Your task to perform on an android device: Go to network settings Image 0: 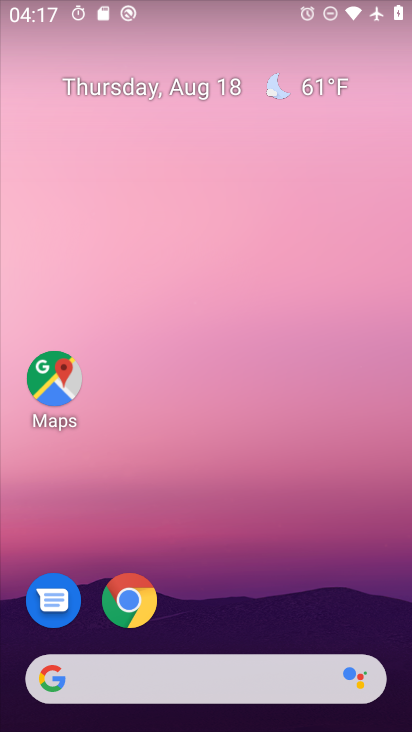
Step 0: press home button
Your task to perform on an android device: Go to network settings Image 1: 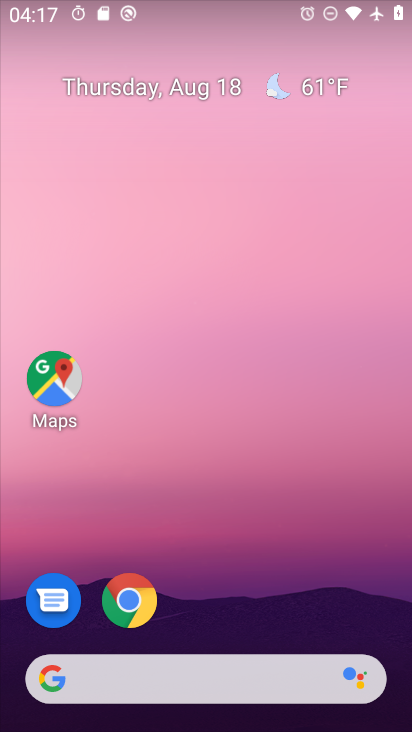
Step 1: drag from (227, 632) to (405, 104)
Your task to perform on an android device: Go to network settings Image 2: 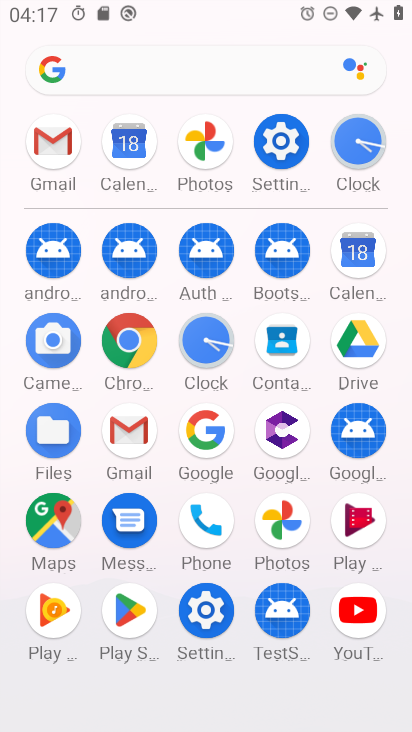
Step 2: click (289, 132)
Your task to perform on an android device: Go to network settings Image 3: 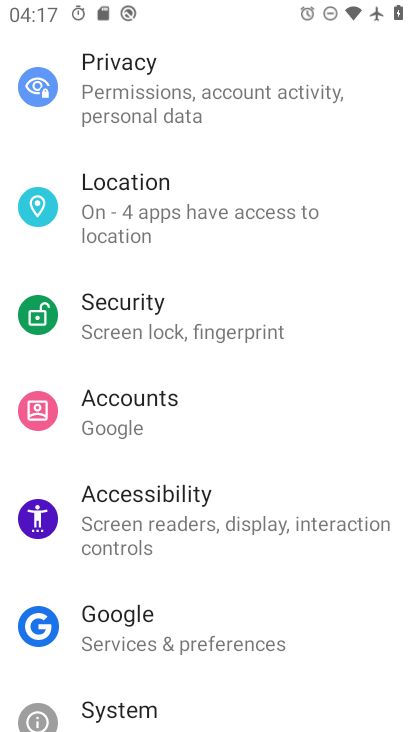
Step 3: drag from (276, 164) to (212, 721)
Your task to perform on an android device: Go to network settings Image 4: 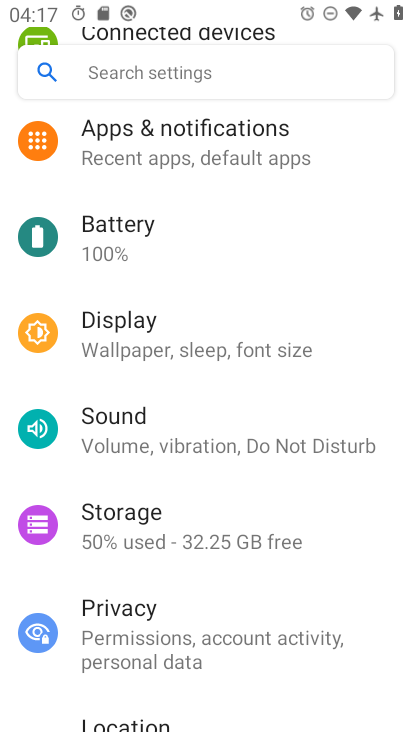
Step 4: drag from (275, 249) to (215, 722)
Your task to perform on an android device: Go to network settings Image 5: 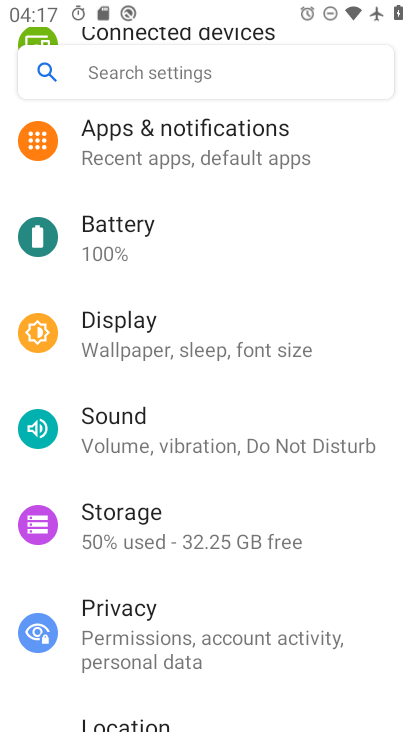
Step 5: drag from (265, 234) to (185, 731)
Your task to perform on an android device: Go to network settings Image 6: 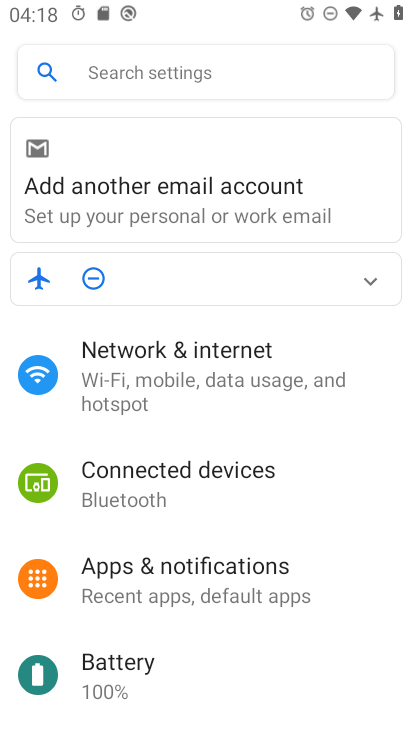
Step 6: click (164, 365)
Your task to perform on an android device: Go to network settings Image 7: 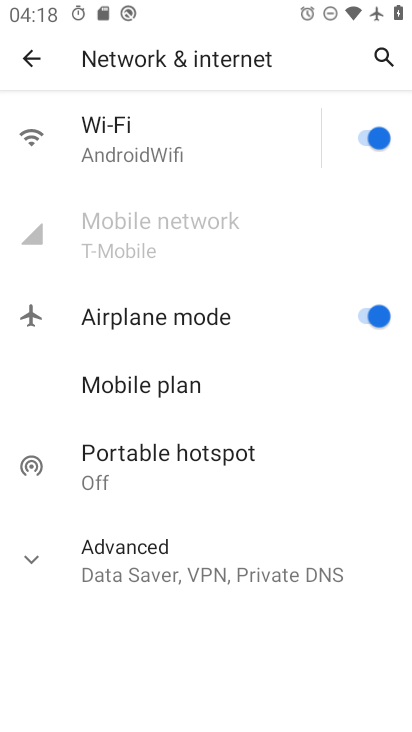
Step 7: task complete